Your task to perform on an android device: Open Amazon Image 0: 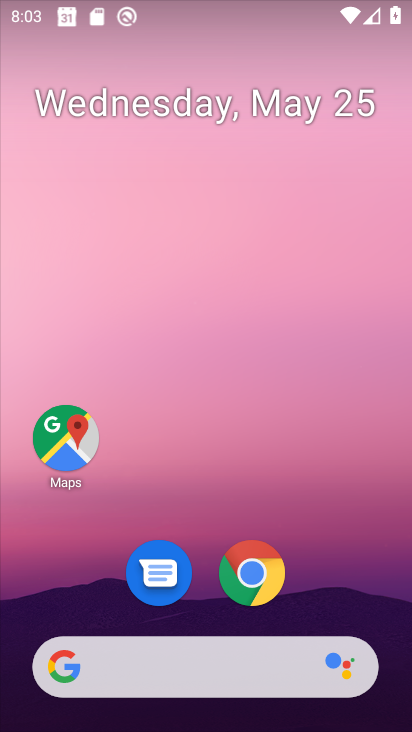
Step 0: click (254, 566)
Your task to perform on an android device: Open Amazon Image 1: 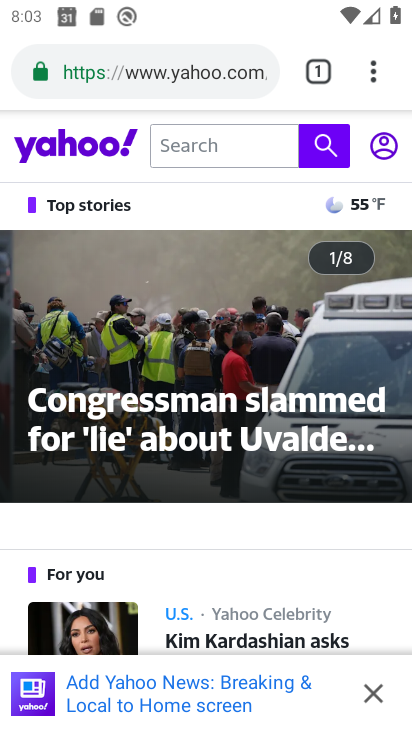
Step 1: click (268, 70)
Your task to perform on an android device: Open Amazon Image 2: 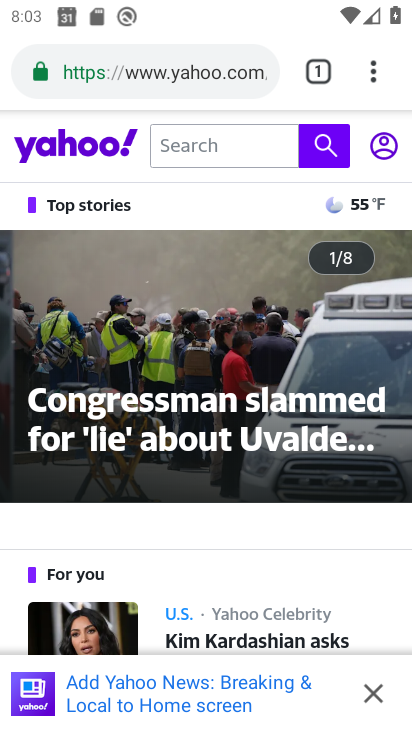
Step 2: click (265, 72)
Your task to perform on an android device: Open Amazon Image 3: 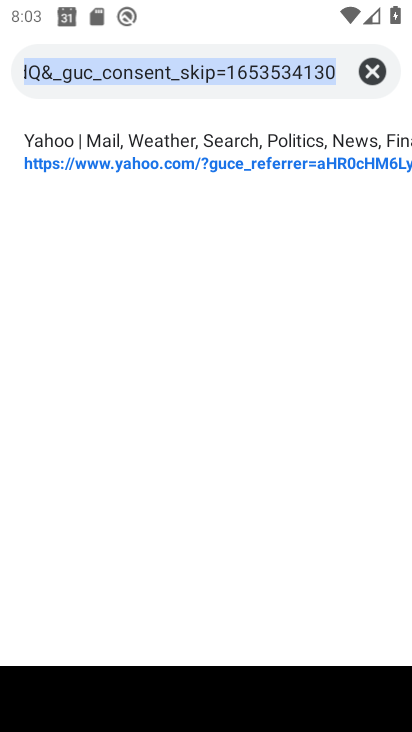
Step 3: click (375, 73)
Your task to perform on an android device: Open Amazon Image 4: 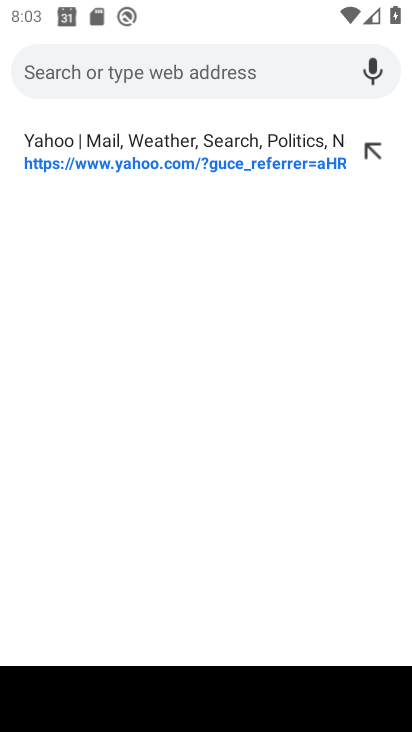
Step 4: type "Amazon"
Your task to perform on an android device: Open Amazon Image 5: 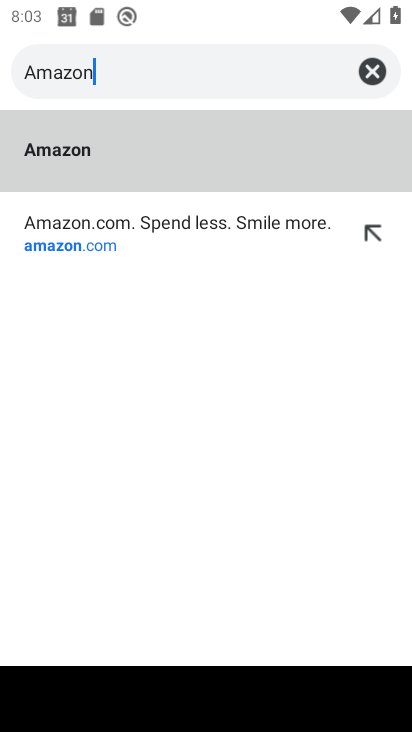
Step 5: click (59, 155)
Your task to perform on an android device: Open Amazon Image 6: 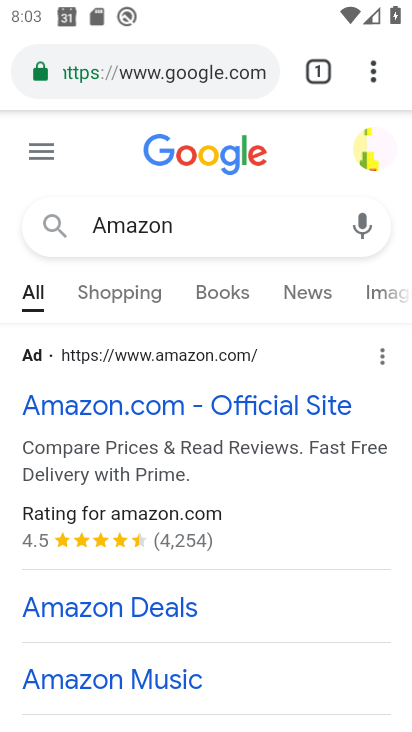
Step 6: task complete